Your task to perform on an android device: Open a new private window in Chrome Image 0: 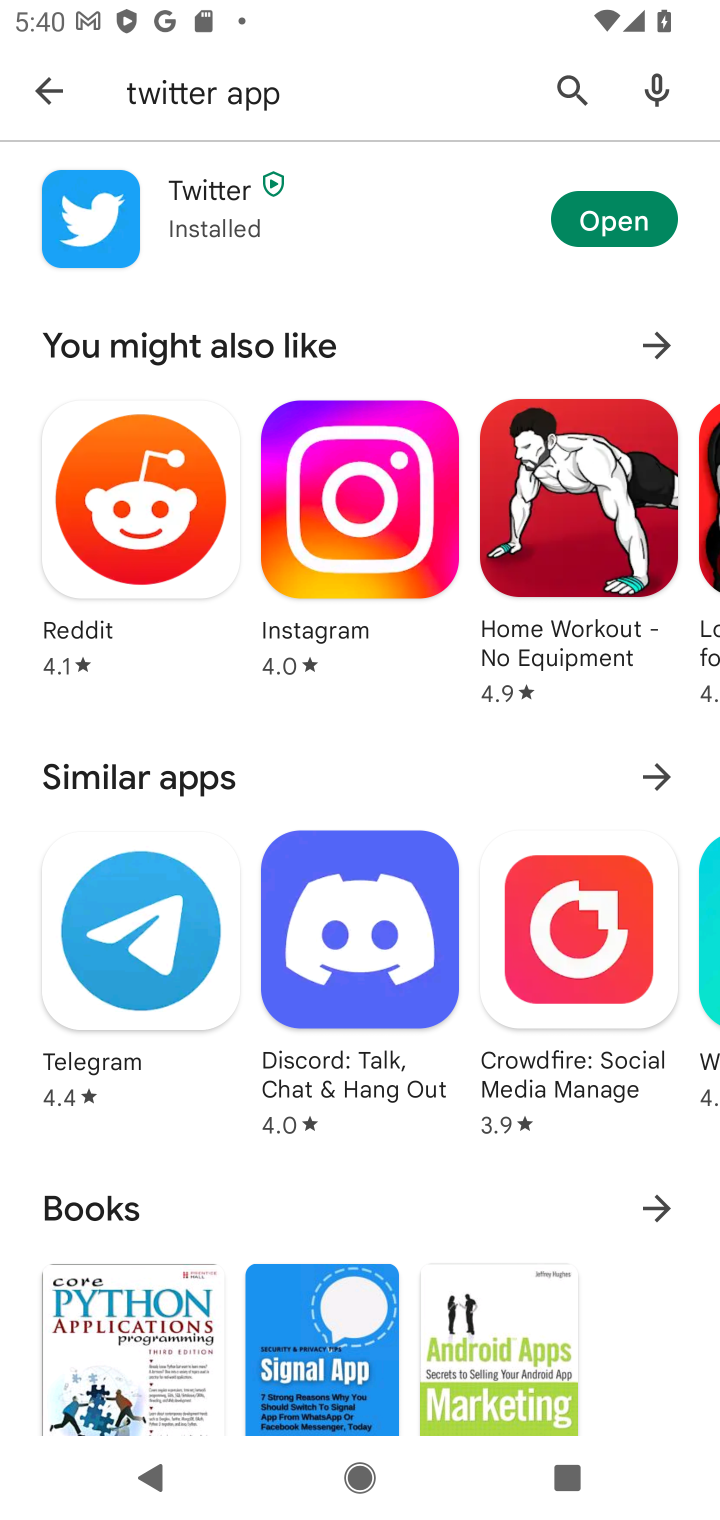
Step 0: press home button
Your task to perform on an android device: Open a new private window in Chrome Image 1: 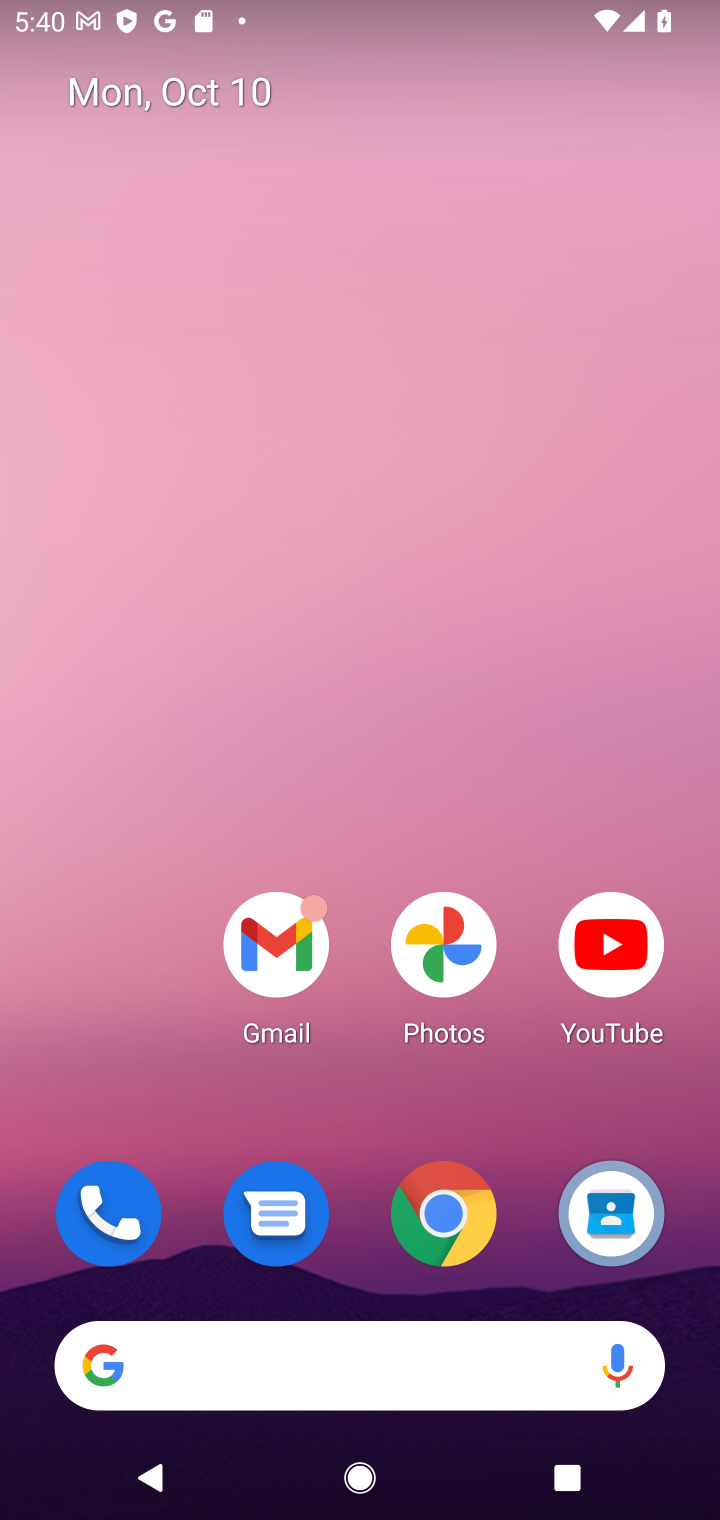
Step 1: click (460, 1228)
Your task to perform on an android device: Open a new private window in Chrome Image 2: 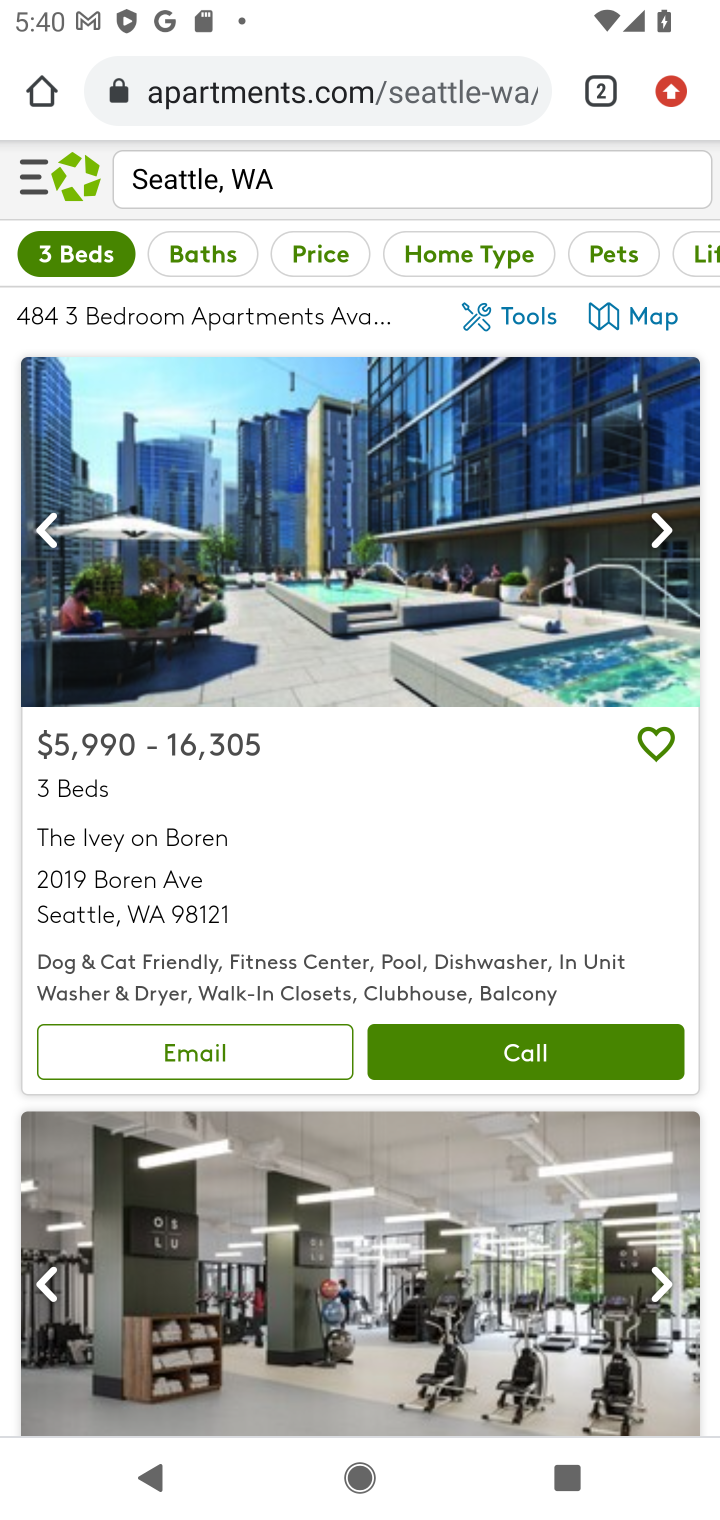
Step 2: click (598, 89)
Your task to perform on an android device: Open a new private window in Chrome Image 3: 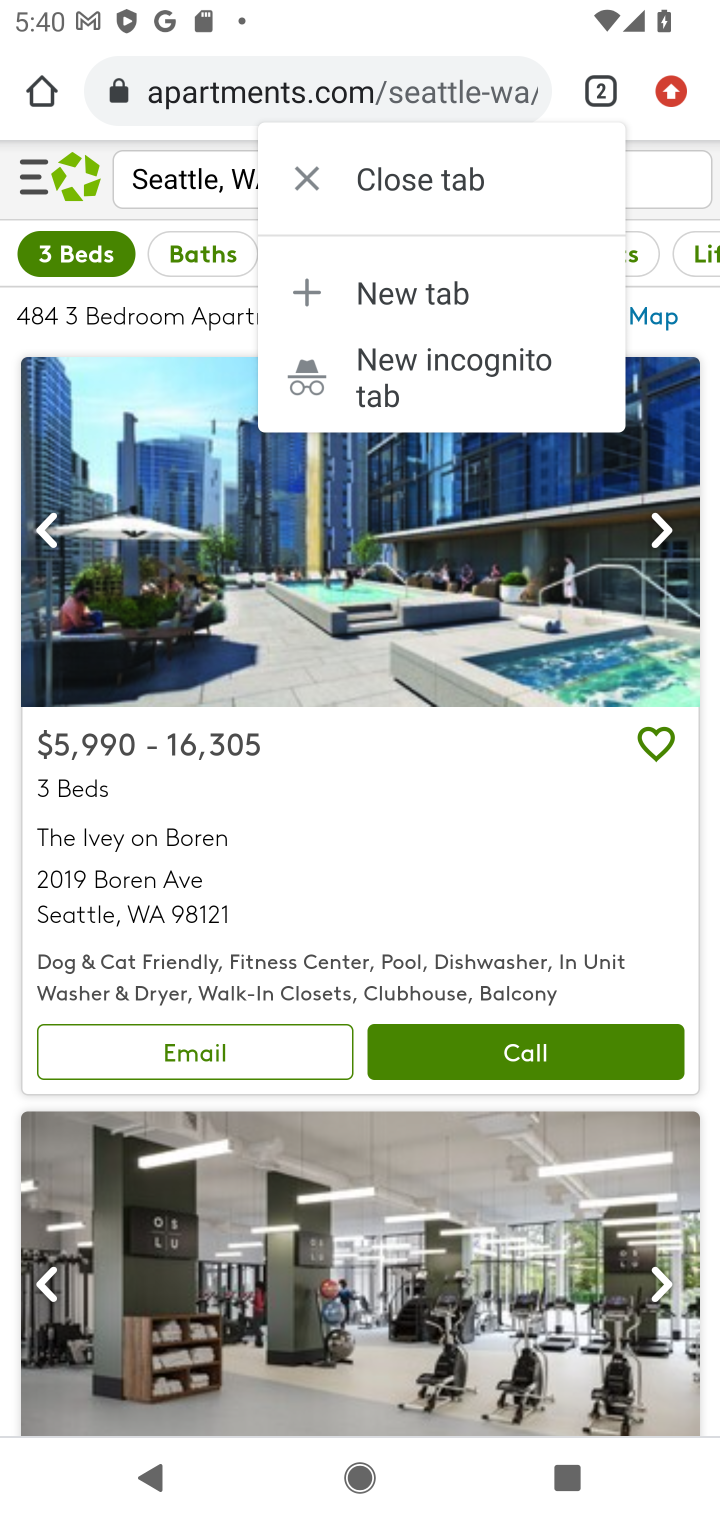
Step 3: click (448, 301)
Your task to perform on an android device: Open a new private window in Chrome Image 4: 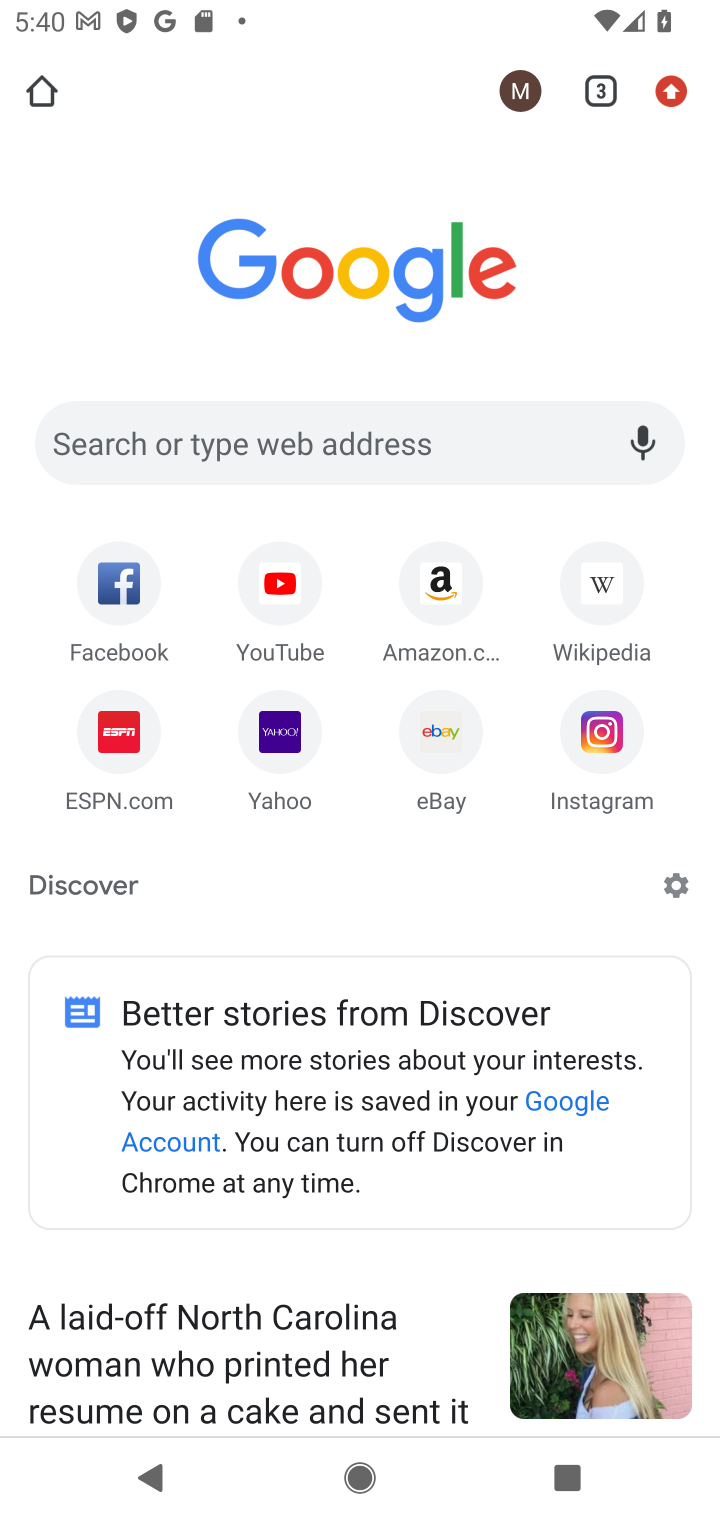
Step 4: task complete